Your task to perform on an android device: turn smart compose on in the gmail app Image 0: 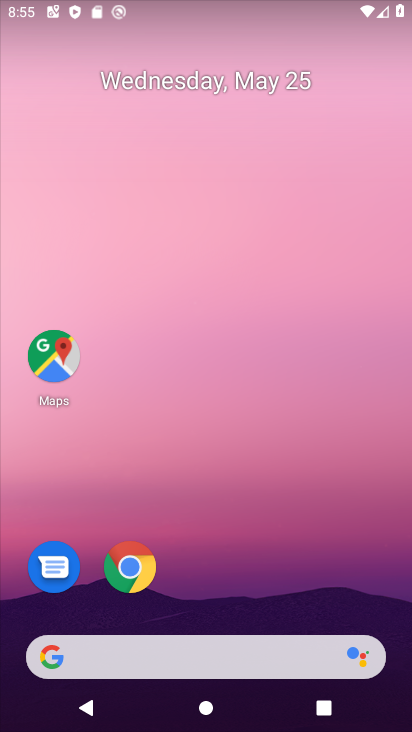
Step 0: drag from (313, 466) to (296, 56)
Your task to perform on an android device: turn smart compose on in the gmail app Image 1: 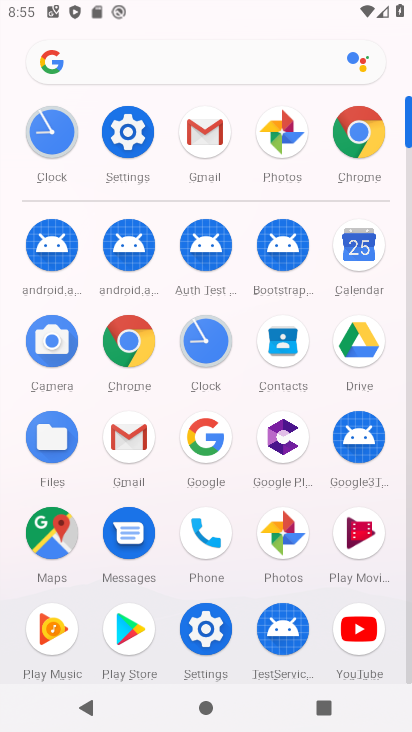
Step 1: click (209, 128)
Your task to perform on an android device: turn smart compose on in the gmail app Image 2: 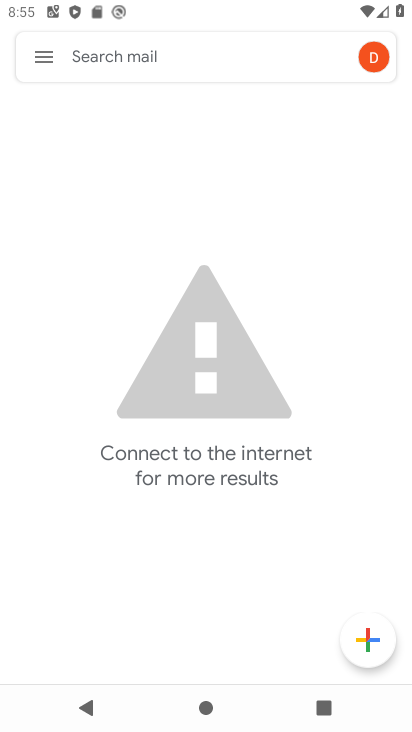
Step 2: click (48, 47)
Your task to perform on an android device: turn smart compose on in the gmail app Image 3: 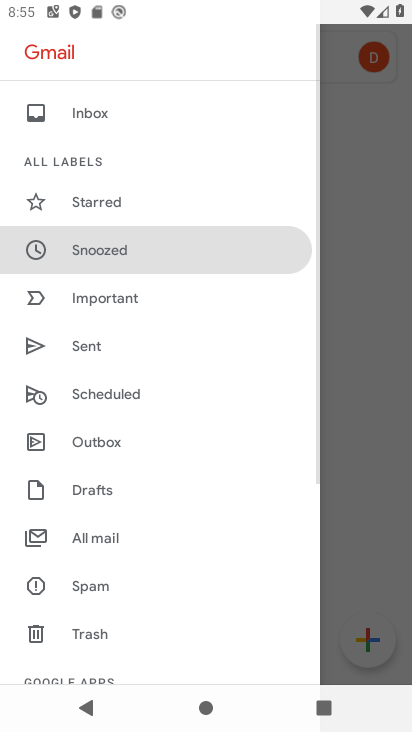
Step 3: drag from (138, 593) to (161, 290)
Your task to perform on an android device: turn smart compose on in the gmail app Image 4: 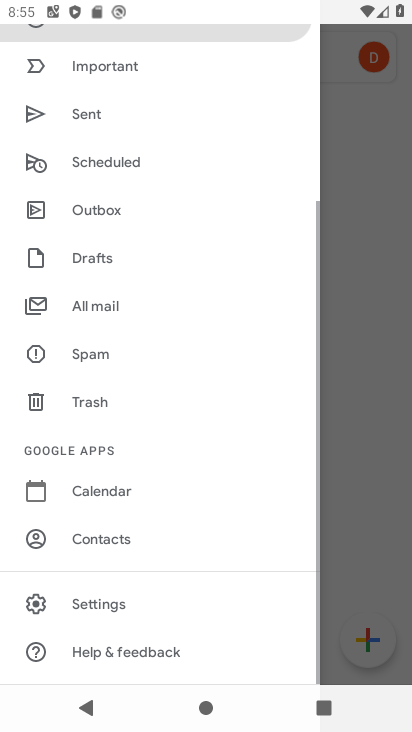
Step 4: click (116, 594)
Your task to perform on an android device: turn smart compose on in the gmail app Image 5: 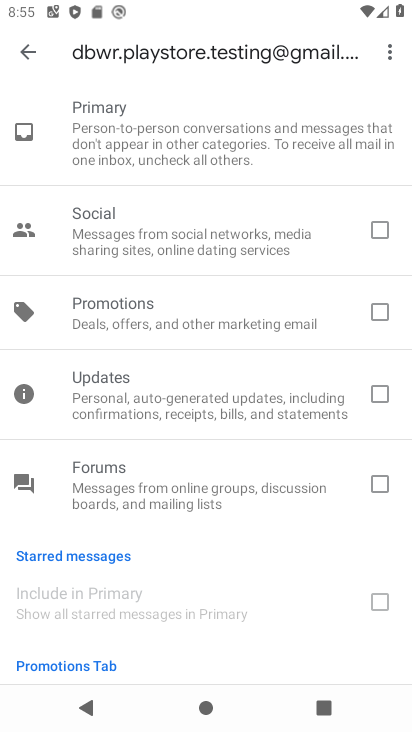
Step 5: drag from (207, 203) to (232, 589)
Your task to perform on an android device: turn smart compose on in the gmail app Image 6: 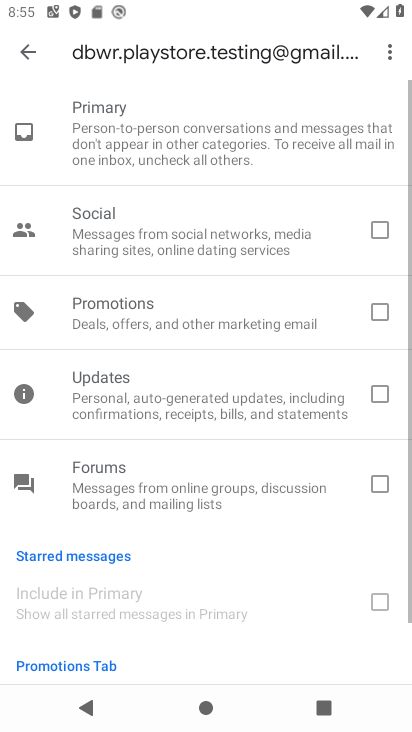
Step 6: drag from (235, 241) to (245, 487)
Your task to perform on an android device: turn smart compose on in the gmail app Image 7: 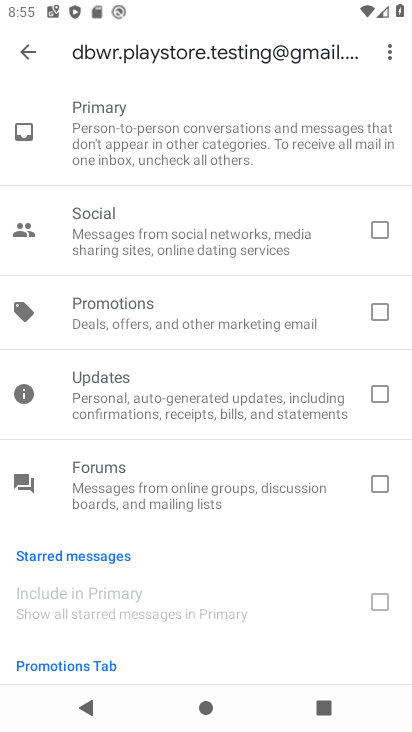
Step 7: click (29, 45)
Your task to perform on an android device: turn smart compose on in the gmail app Image 8: 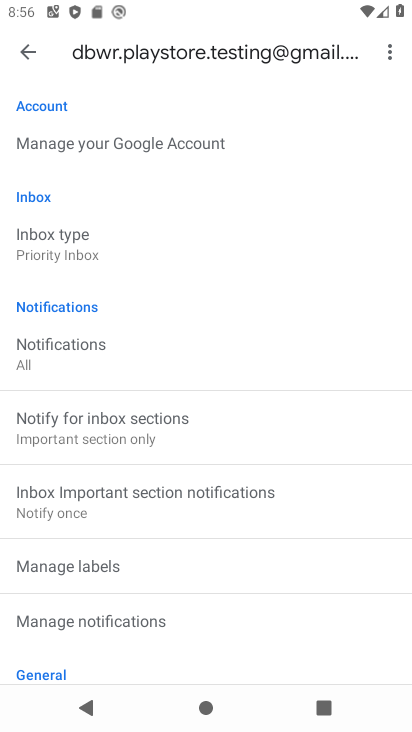
Step 8: task complete